Your task to perform on an android device: turn on javascript in the chrome app Image 0: 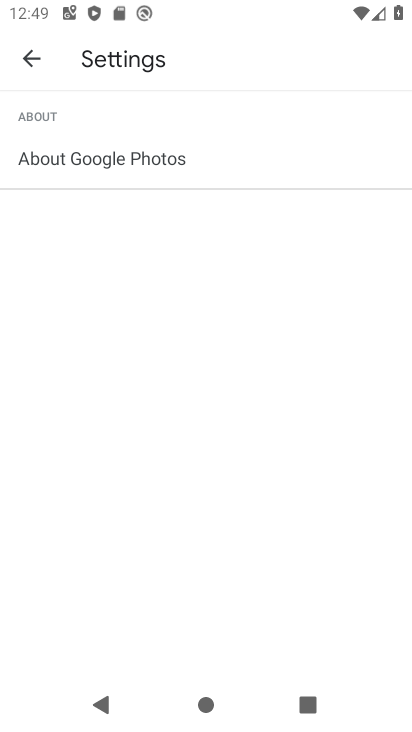
Step 0: press home button
Your task to perform on an android device: turn on javascript in the chrome app Image 1: 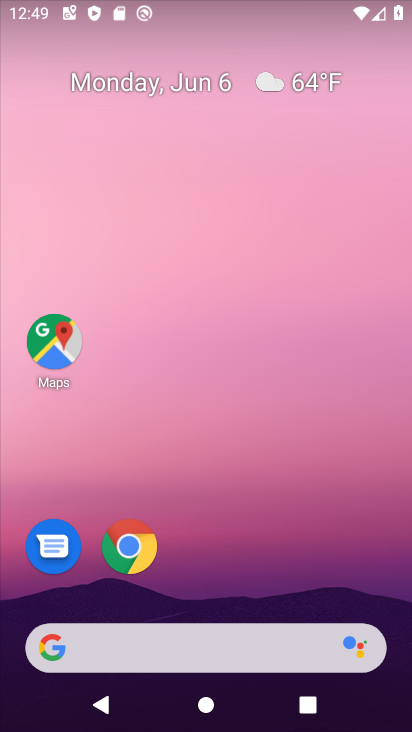
Step 1: click (127, 548)
Your task to perform on an android device: turn on javascript in the chrome app Image 2: 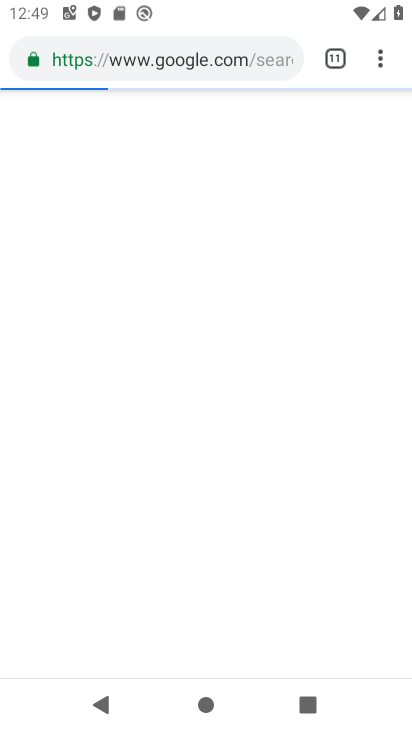
Step 2: click (386, 53)
Your task to perform on an android device: turn on javascript in the chrome app Image 3: 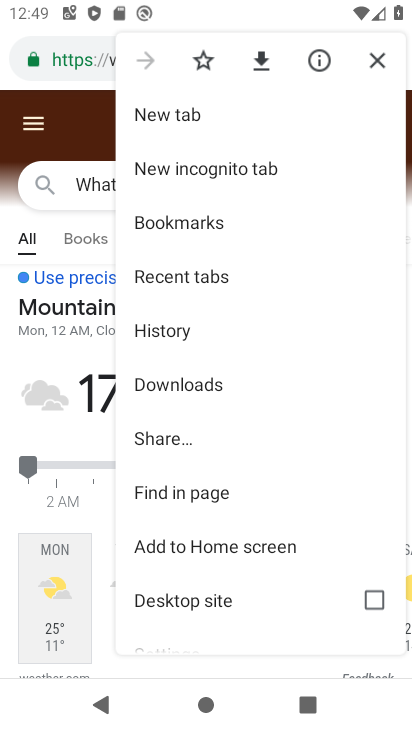
Step 3: drag from (216, 576) to (254, 233)
Your task to perform on an android device: turn on javascript in the chrome app Image 4: 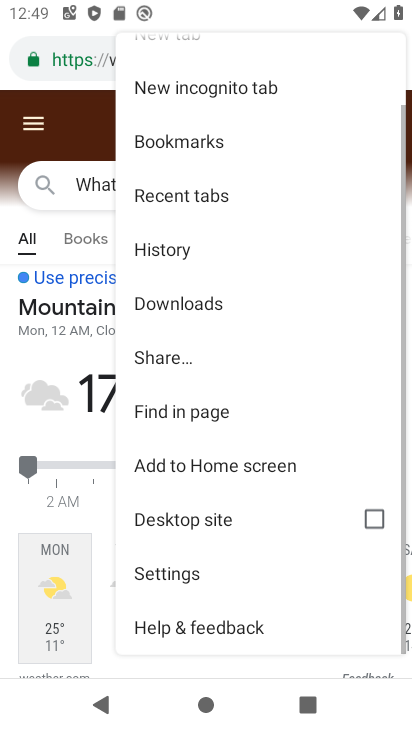
Step 4: click (183, 578)
Your task to perform on an android device: turn on javascript in the chrome app Image 5: 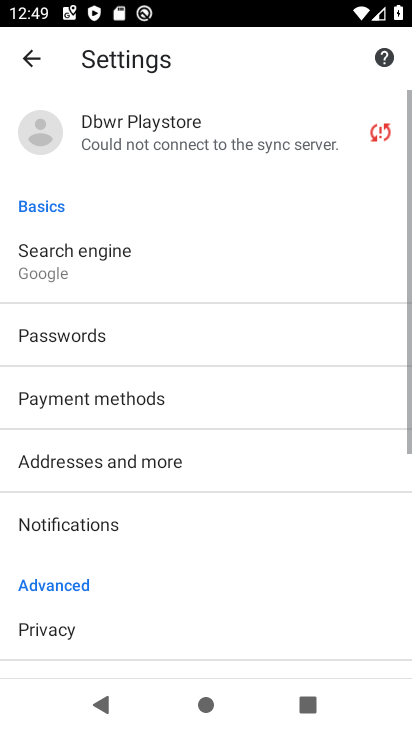
Step 5: drag from (158, 599) to (168, 298)
Your task to perform on an android device: turn on javascript in the chrome app Image 6: 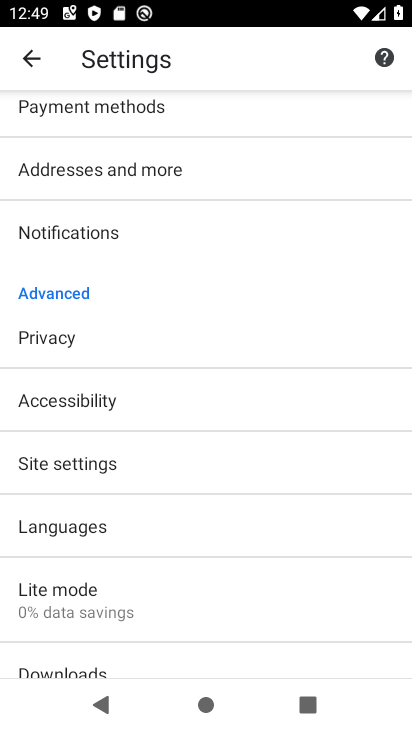
Step 6: click (106, 454)
Your task to perform on an android device: turn on javascript in the chrome app Image 7: 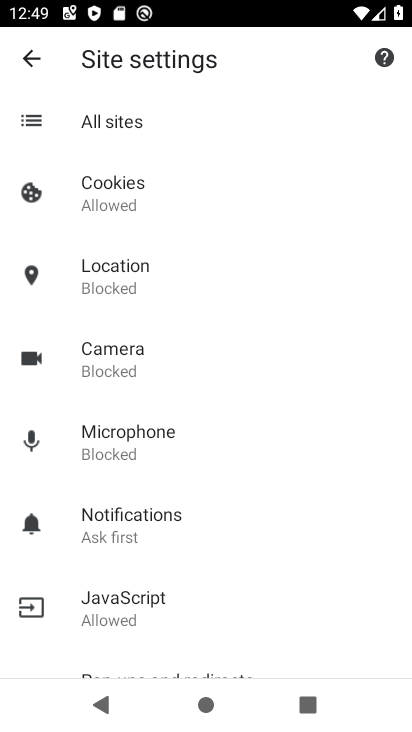
Step 7: click (131, 603)
Your task to perform on an android device: turn on javascript in the chrome app Image 8: 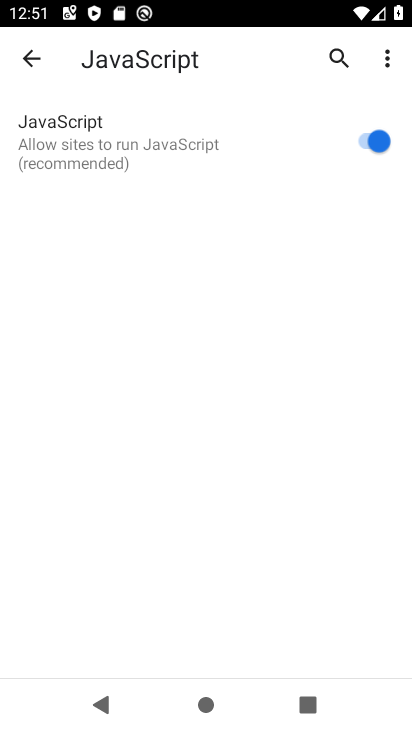
Step 8: task complete